Your task to perform on an android device: Check the news Image 0: 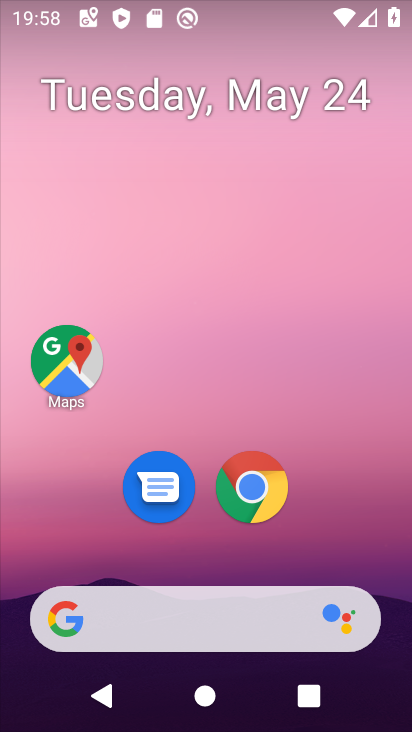
Step 0: click (149, 624)
Your task to perform on an android device: Check the news Image 1: 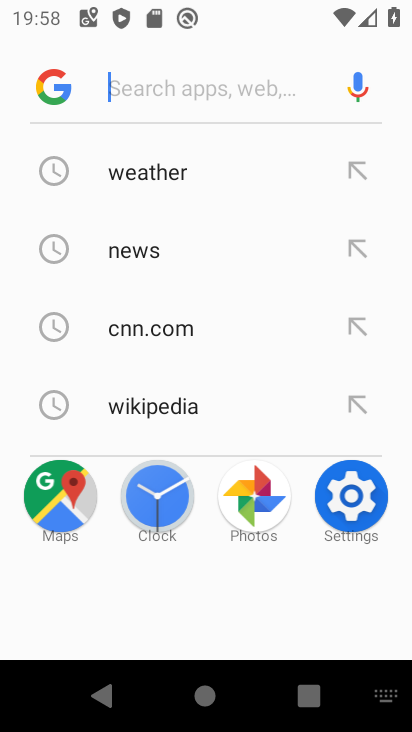
Step 1: click (192, 243)
Your task to perform on an android device: Check the news Image 2: 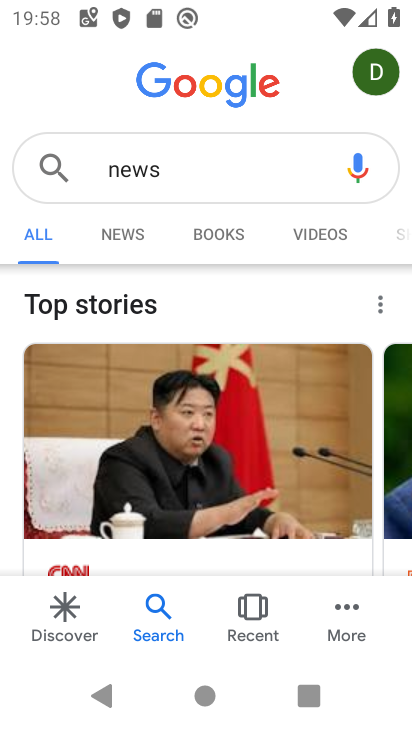
Step 2: task complete